Your task to perform on an android device: Open Wikipedia Image 0: 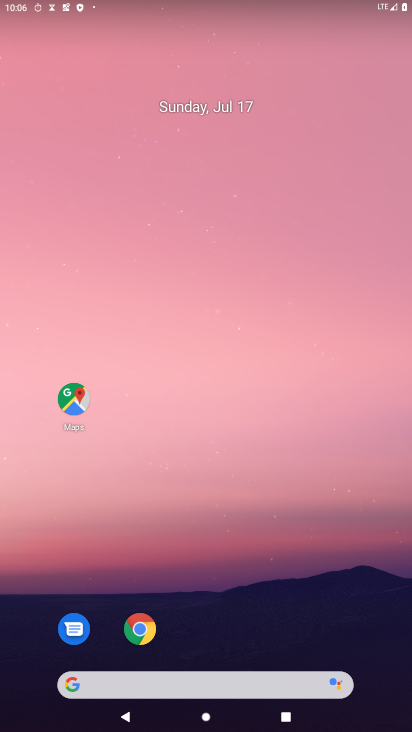
Step 0: drag from (229, 695) to (132, 127)
Your task to perform on an android device: Open Wikipedia Image 1: 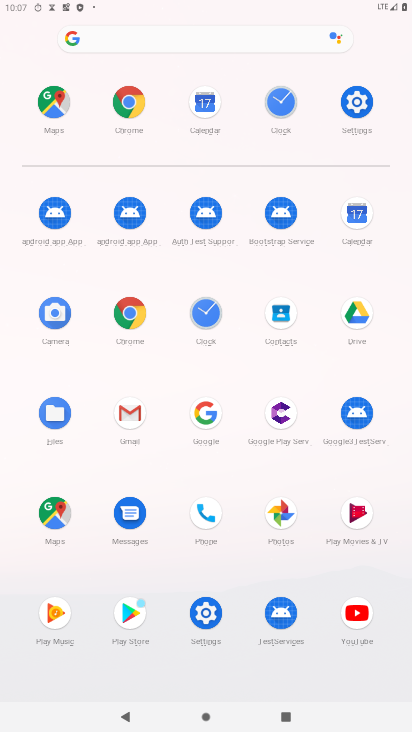
Step 1: click (129, 100)
Your task to perform on an android device: Open Wikipedia Image 2: 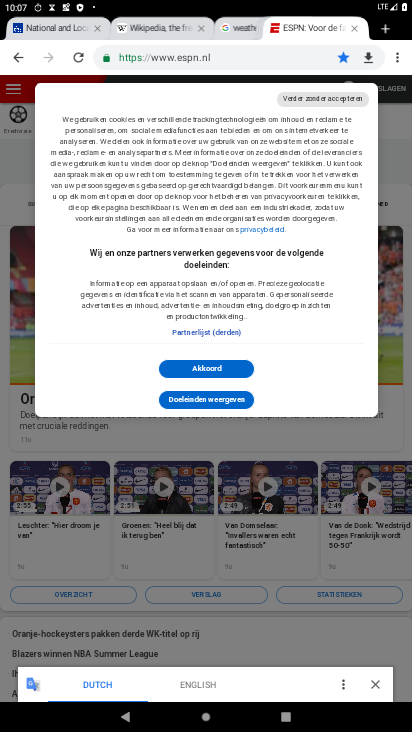
Step 2: click (399, 61)
Your task to perform on an android device: Open Wikipedia Image 3: 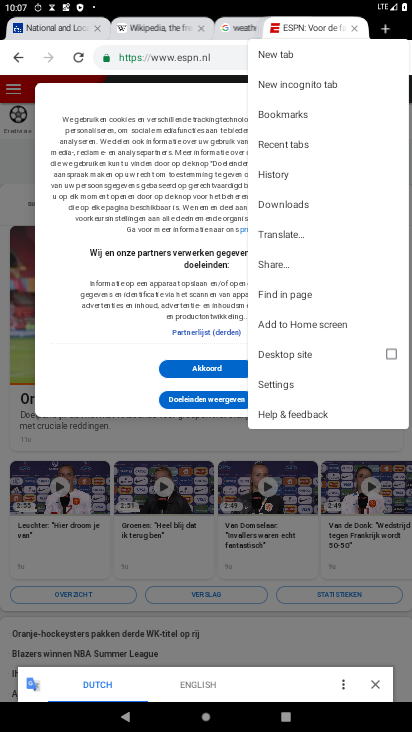
Step 3: click (285, 57)
Your task to perform on an android device: Open Wikipedia Image 4: 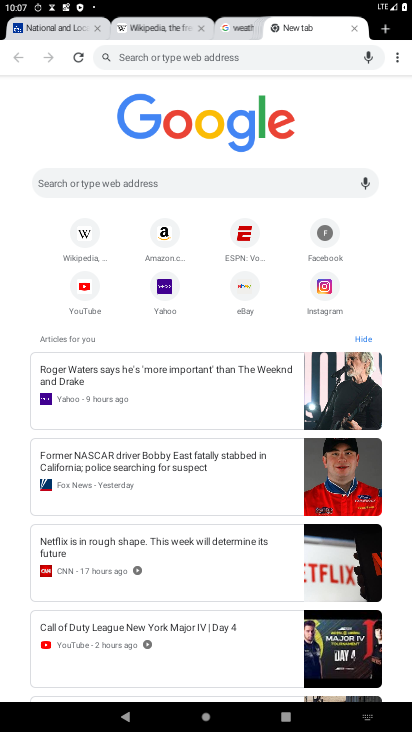
Step 4: click (85, 236)
Your task to perform on an android device: Open Wikipedia Image 5: 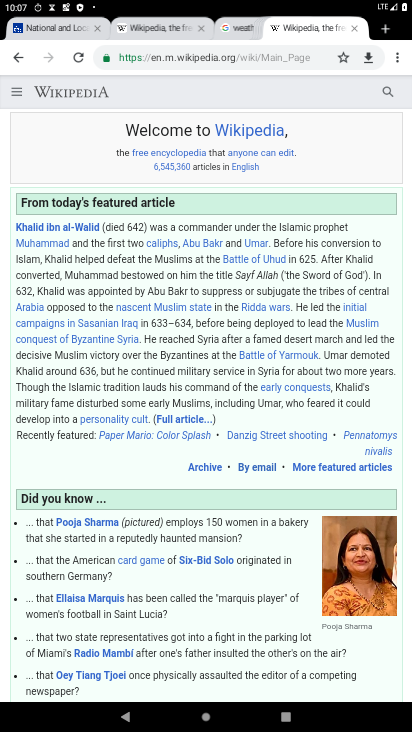
Step 5: task complete